Your task to perform on an android device: Find coffee shops on Maps Image 0: 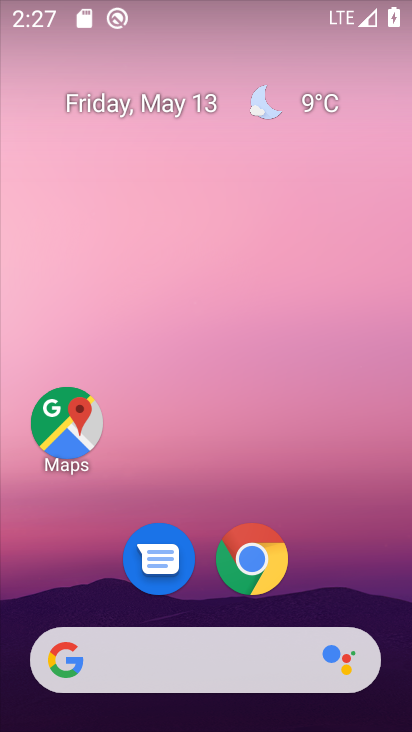
Step 0: click (55, 413)
Your task to perform on an android device: Find coffee shops on Maps Image 1: 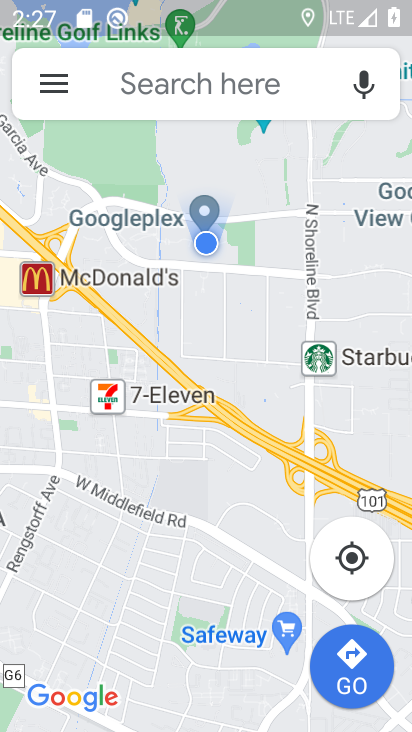
Step 1: click (123, 74)
Your task to perform on an android device: Find coffee shops on Maps Image 2: 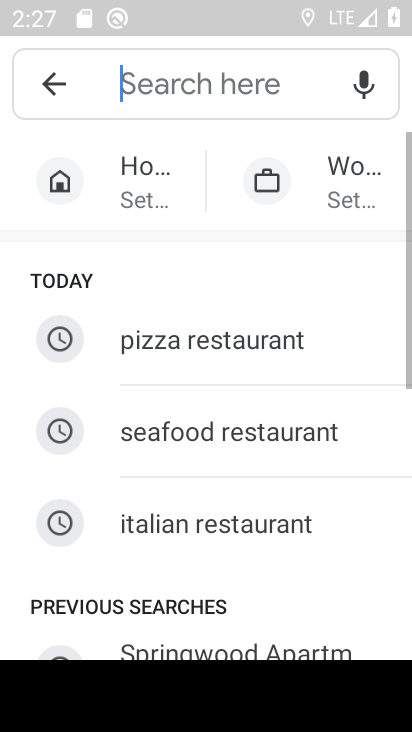
Step 2: click (117, 89)
Your task to perform on an android device: Find coffee shops on Maps Image 3: 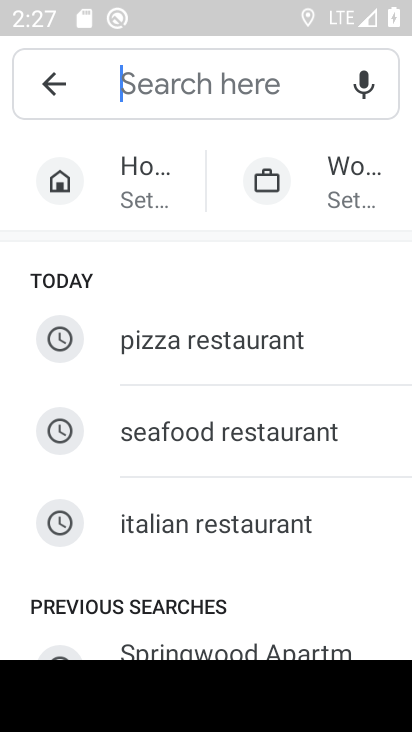
Step 3: click (136, 86)
Your task to perform on an android device: Find coffee shops on Maps Image 4: 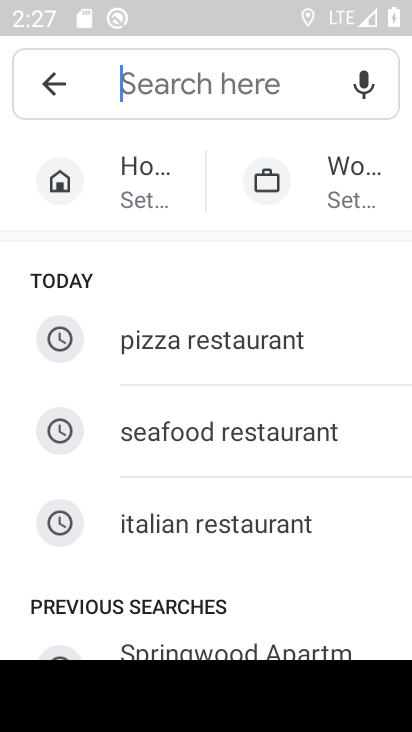
Step 4: click (157, 84)
Your task to perform on an android device: Find coffee shops on Maps Image 5: 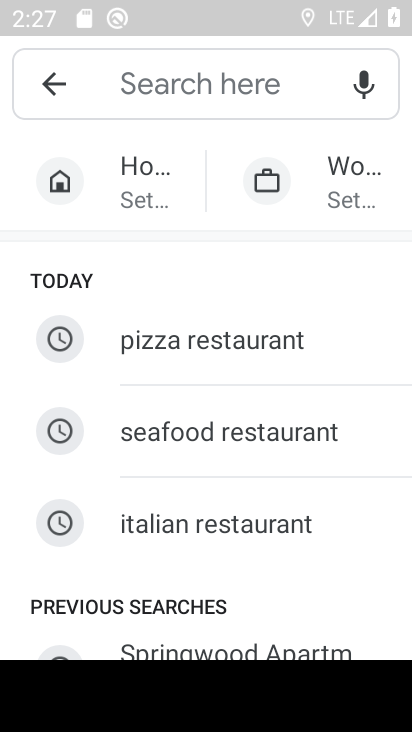
Step 5: type "coffee shops"
Your task to perform on an android device: Find coffee shops on Maps Image 6: 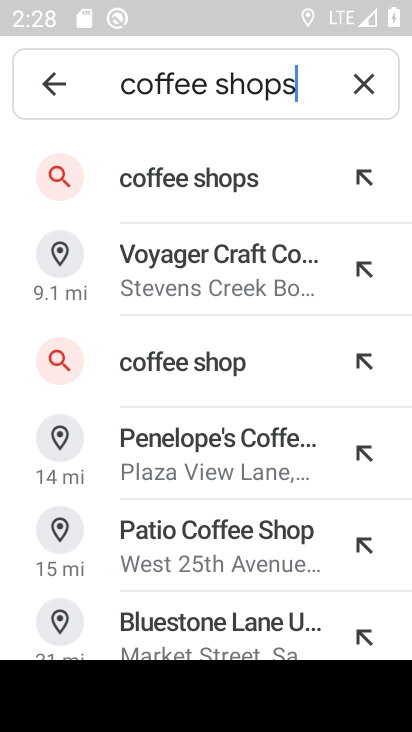
Step 6: click (184, 186)
Your task to perform on an android device: Find coffee shops on Maps Image 7: 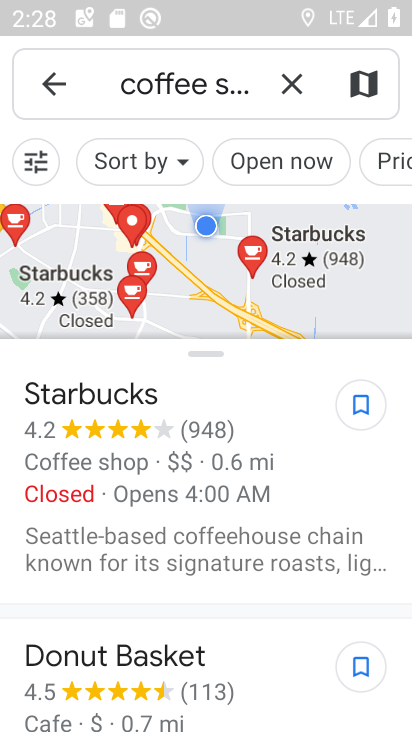
Step 7: task complete